Your task to perform on an android device: turn off smart reply in the gmail app Image 0: 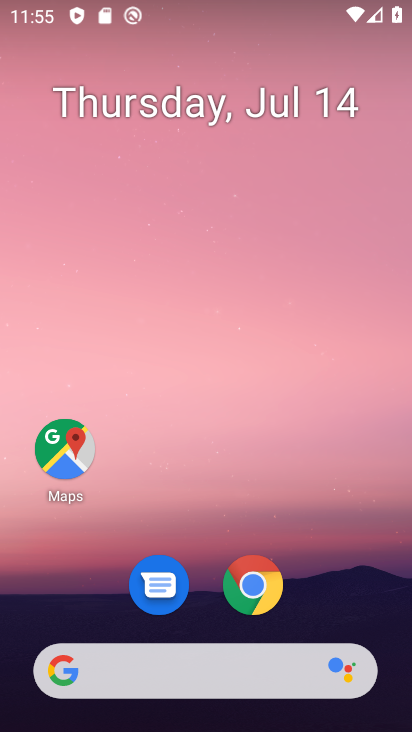
Step 0: drag from (336, 576) to (261, 47)
Your task to perform on an android device: turn off smart reply in the gmail app Image 1: 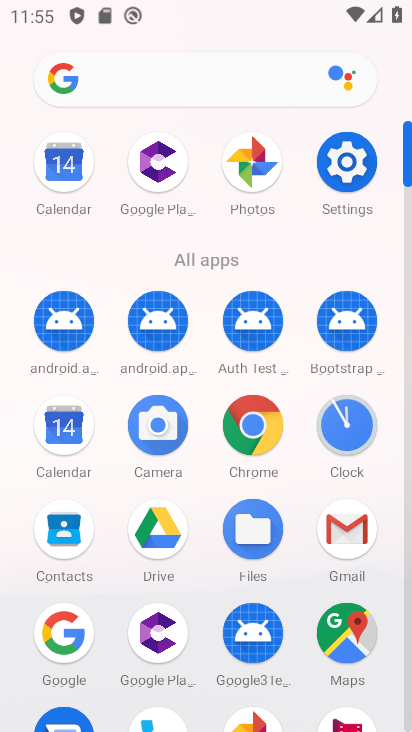
Step 1: click (355, 527)
Your task to perform on an android device: turn off smart reply in the gmail app Image 2: 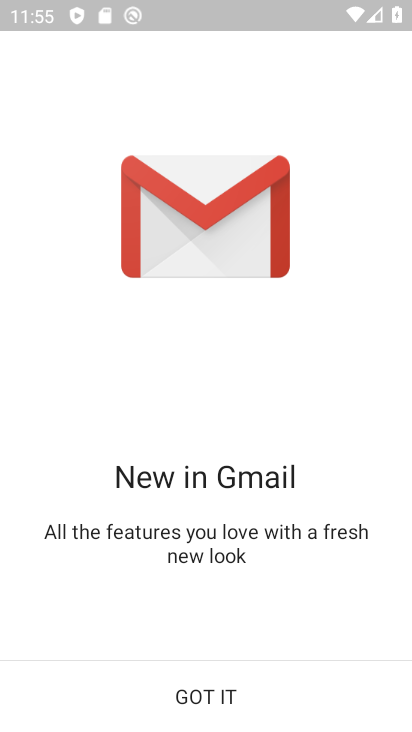
Step 2: click (242, 684)
Your task to perform on an android device: turn off smart reply in the gmail app Image 3: 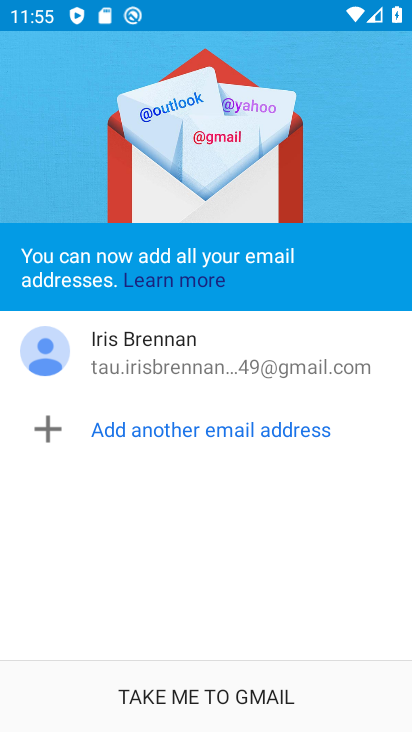
Step 3: click (242, 682)
Your task to perform on an android device: turn off smart reply in the gmail app Image 4: 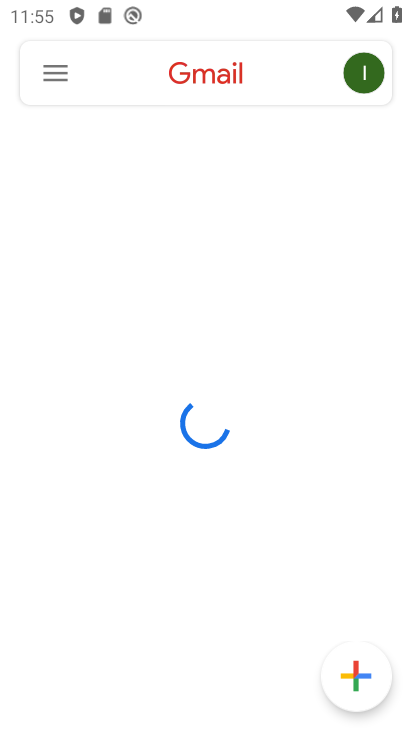
Step 4: click (54, 79)
Your task to perform on an android device: turn off smart reply in the gmail app Image 5: 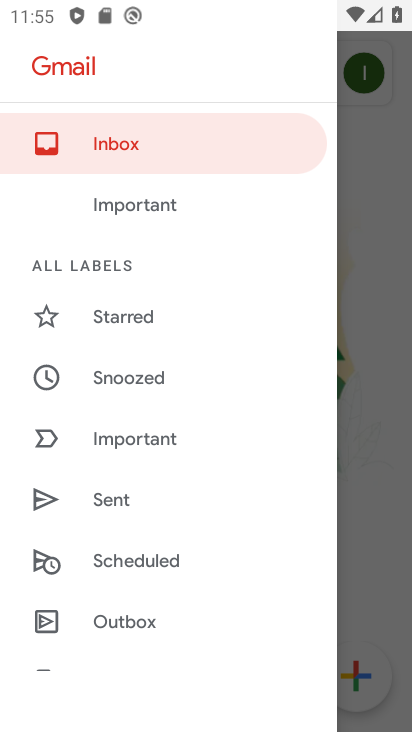
Step 5: drag from (166, 529) to (226, 24)
Your task to perform on an android device: turn off smart reply in the gmail app Image 6: 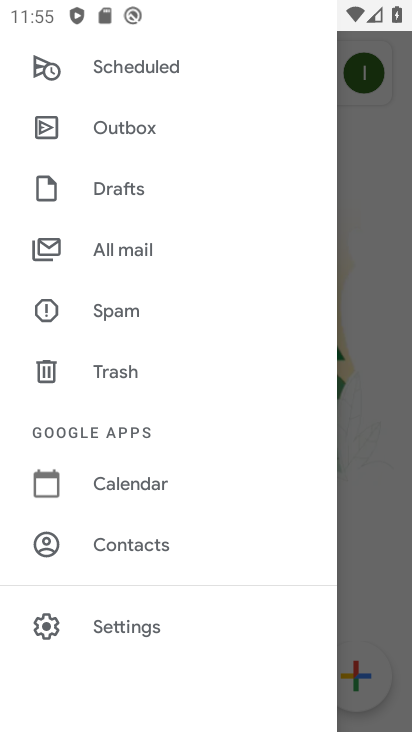
Step 6: click (139, 630)
Your task to perform on an android device: turn off smart reply in the gmail app Image 7: 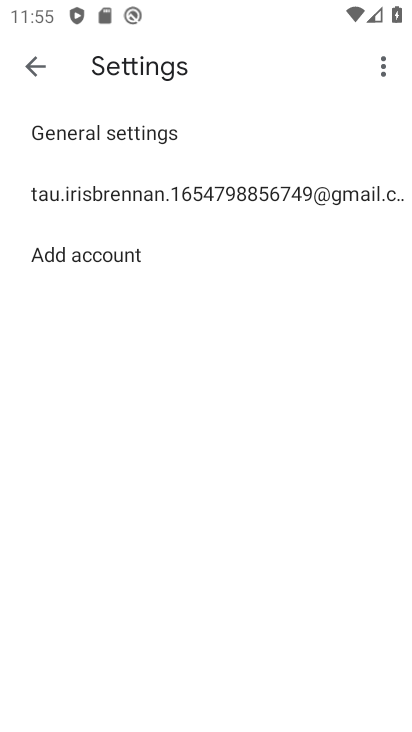
Step 7: click (281, 195)
Your task to perform on an android device: turn off smart reply in the gmail app Image 8: 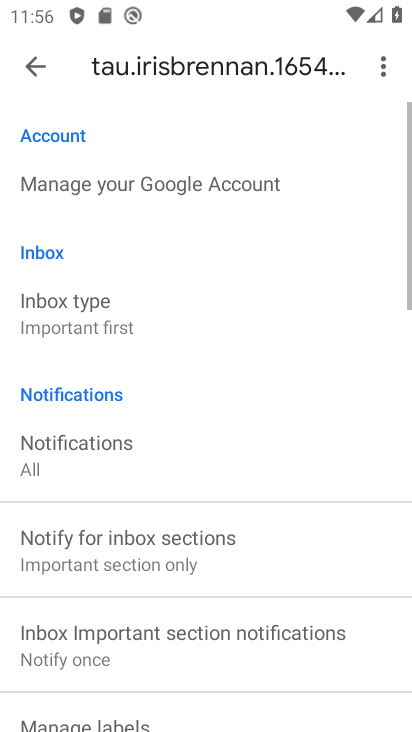
Step 8: drag from (226, 462) to (223, 36)
Your task to perform on an android device: turn off smart reply in the gmail app Image 9: 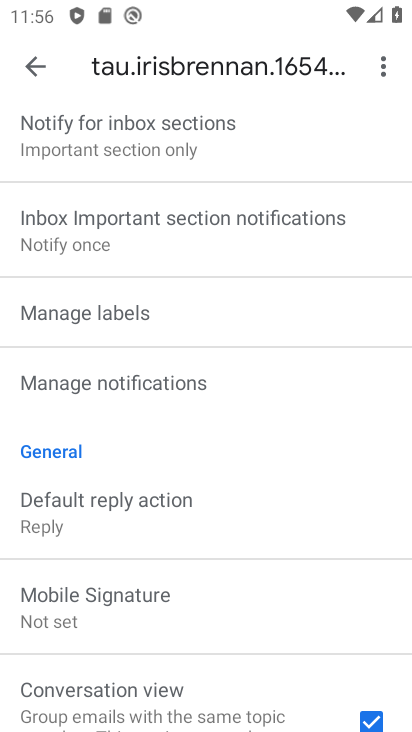
Step 9: drag from (211, 502) to (221, 216)
Your task to perform on an android device: turn off smart reply in the gmail app Image 10: 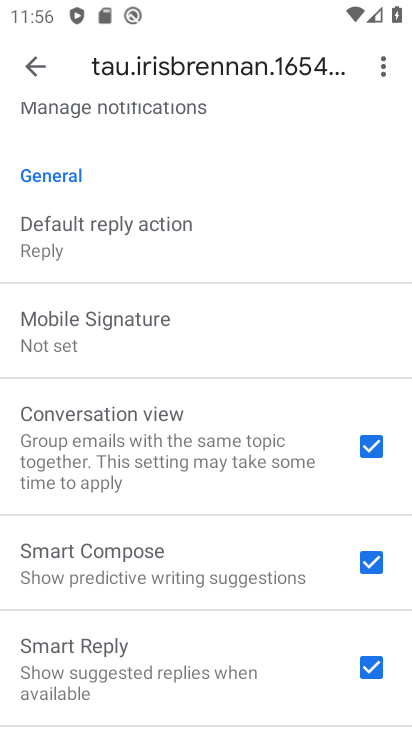
Step 10: drag from (244, 398) to (241, 245)
Your task to perform on an android device: turn off smart reply in the gmail app Image 11: 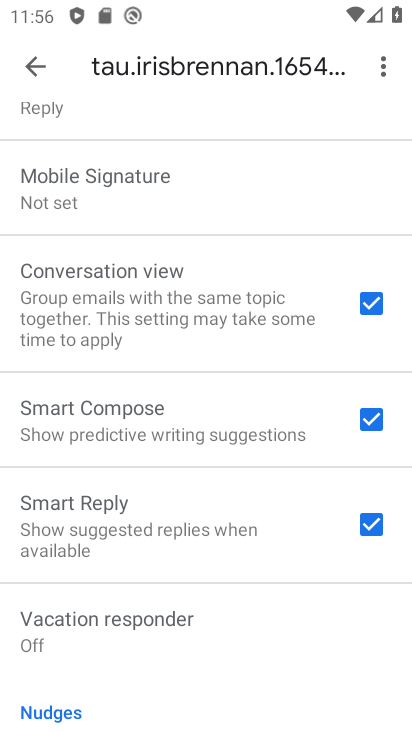
Step 11: click (376, 527)
Your task to perform on an android device: turn off smart reply in the gmail app Image 12: 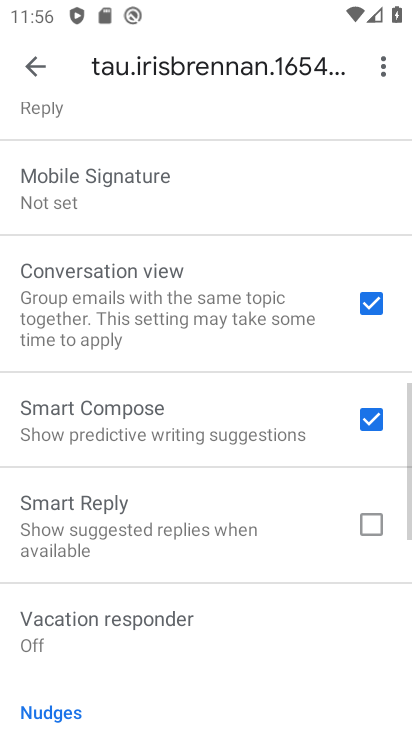
Step 12: task complete